Your task to perform on an android device: turn off improve location accuracy Image 0: 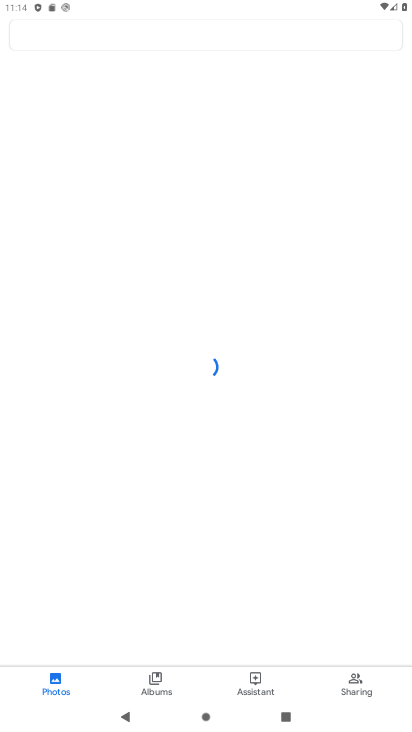
Step 0: press home button
Your task to perform on an android device: turn off improve location accuracy Image 1: 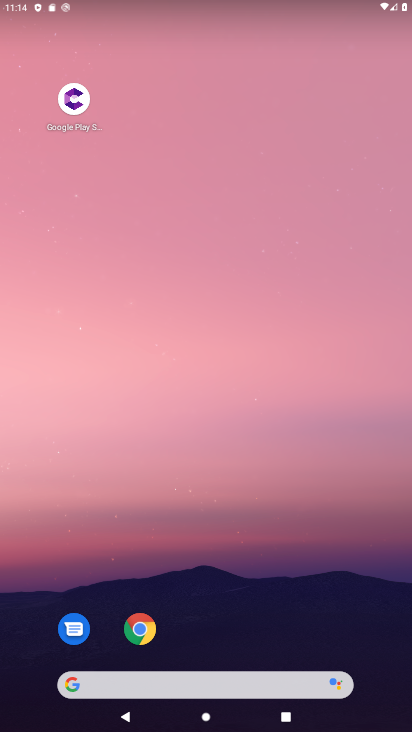
Step 1: drag from (330, 611) to (316, 160)
Your task to perform on an android device: turn off improve location accuracy Image 2: 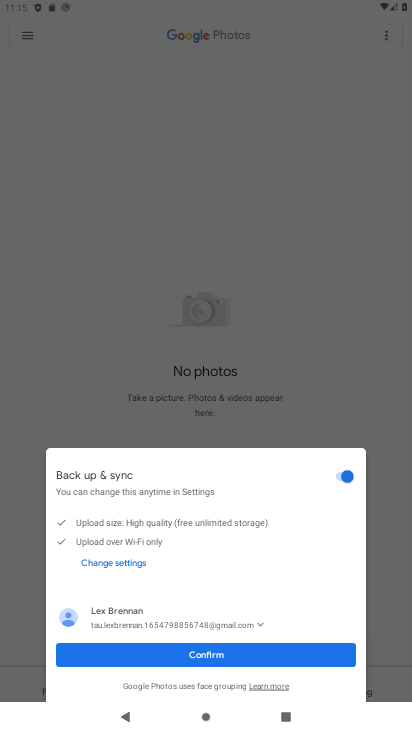
Step 2: press home button
Your task to perform on an android device: turn off improve location accuracy Image 3: 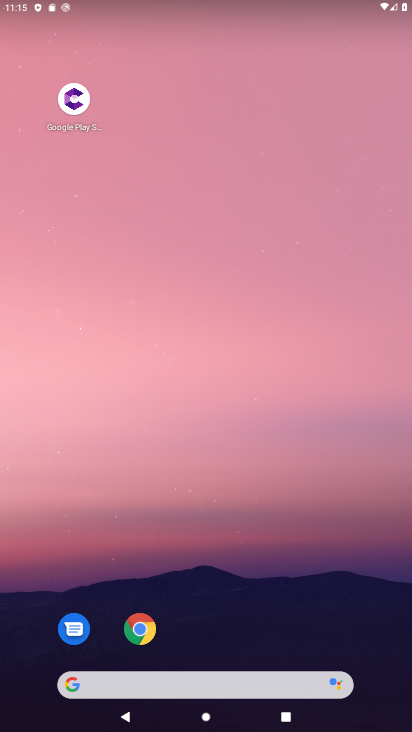
Step 3: drag from (240, 642) to (251, 106)
Your task to perform on an android device: turn off improve location accuracy Image 4: 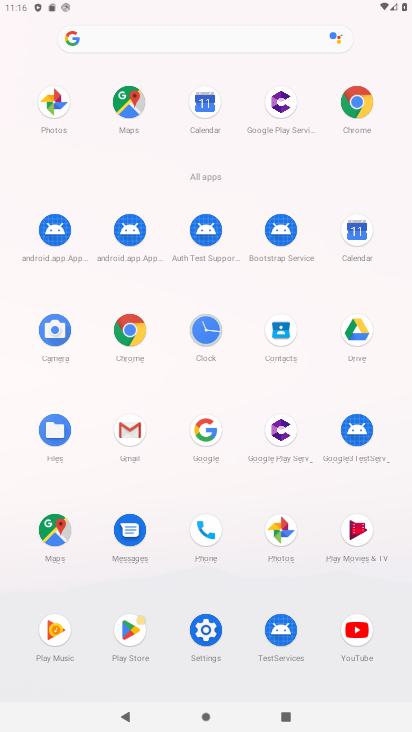
Step 4: click (218, 630)
Your task to perform on an android device: turn off improve location accuracy Image 5: 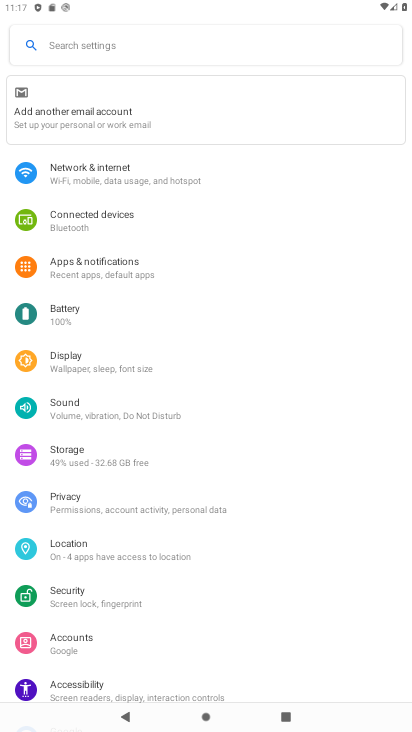
Step 5: click (73, 543)
Your task to perform on an android device: turn off improve location accuracy Image 6: 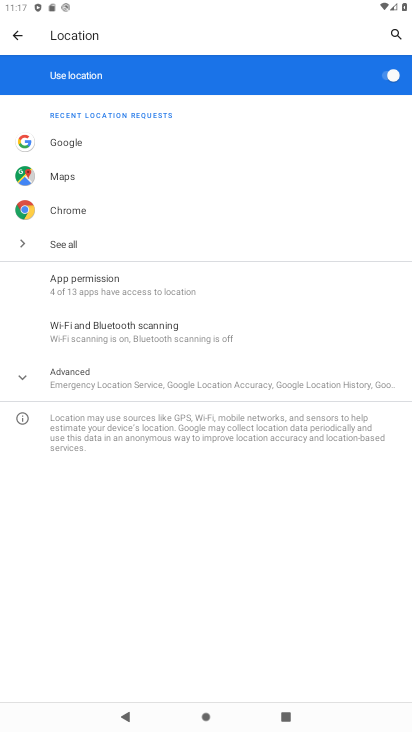
Step 6: click (102, 387)
Your task to perform on an android device: turn off improve location accuracy Image 7: 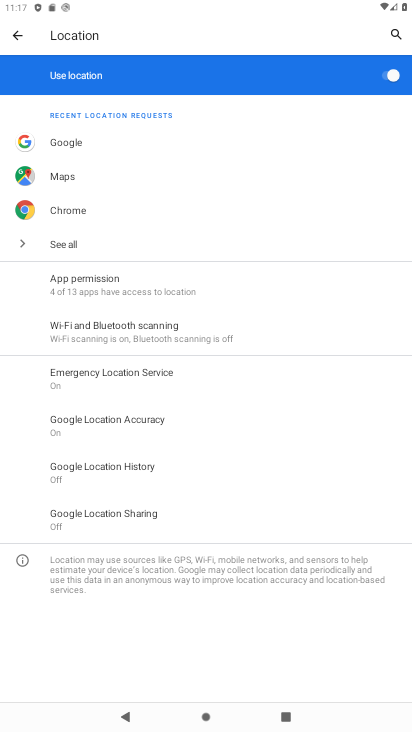
Step 7: click (121, 433)
Your task to perform on an android device: turn off improve location accuracy Image 8: 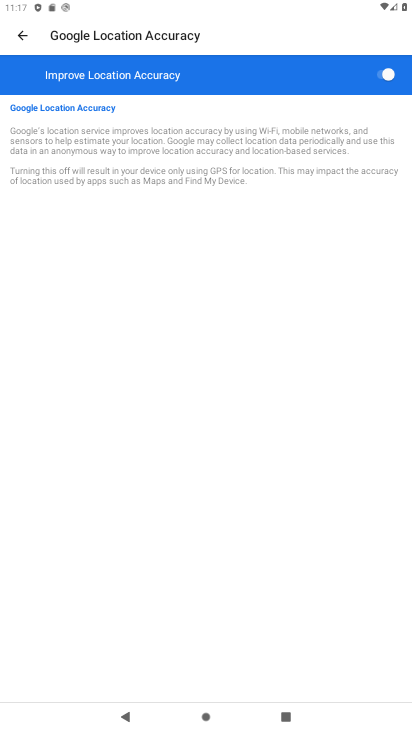
Step 8: click (215, 89)
Your task to perform on an android device: turn off improve location accuracy Image 9: 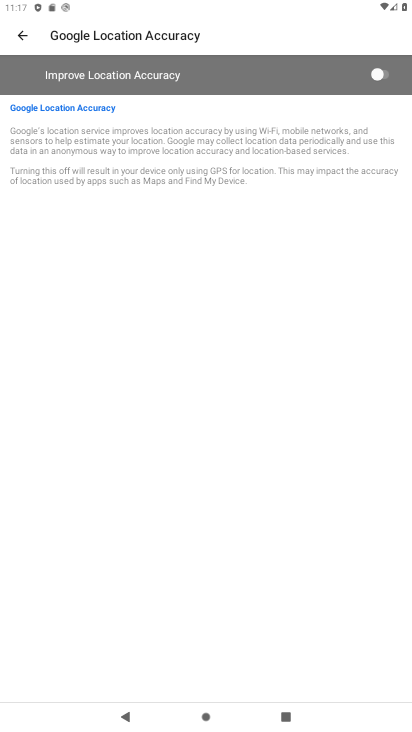
Step 9: task complete